Your task to perform on an android device: turn smart compose on in the gmail app Image 0: 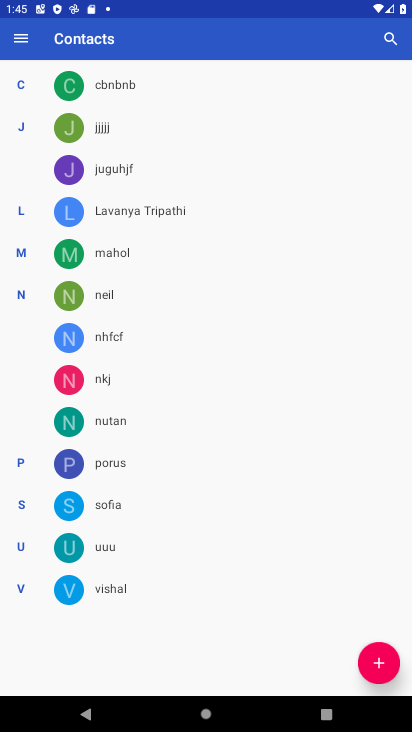
Step 0: press home button
Your task to perform on an android device: turn smart compose on in the gmail app Image 1: 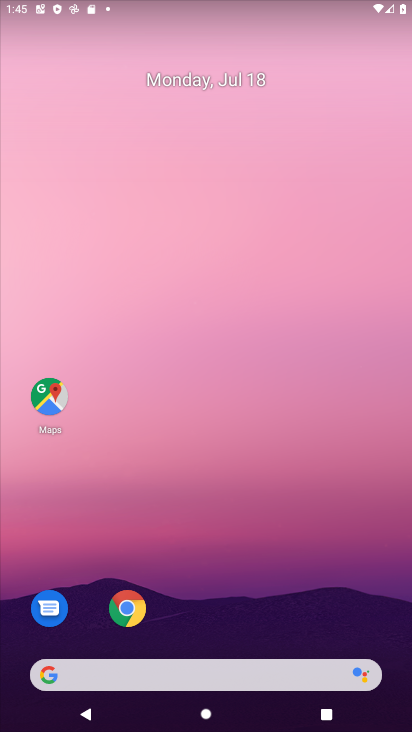
Step 1: drag from (393, 643) to (228, 23)
Your task to perform on an android device: turn smart compose on in the gmail app Image 2: 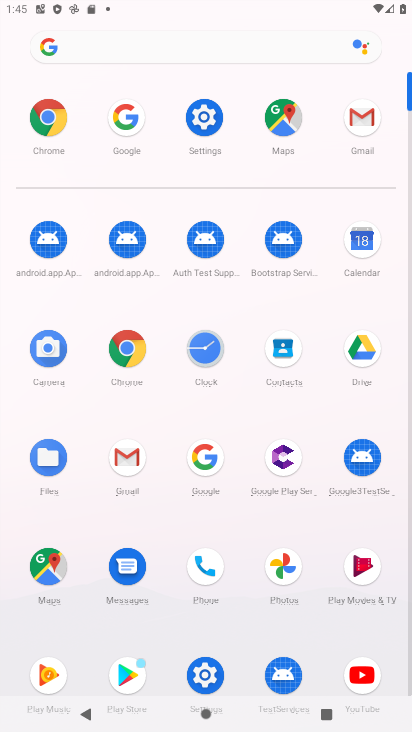
Step 2: click (113, 445)
Your task to perform on an android device: turn smart compose on in the gmail app Image 3: 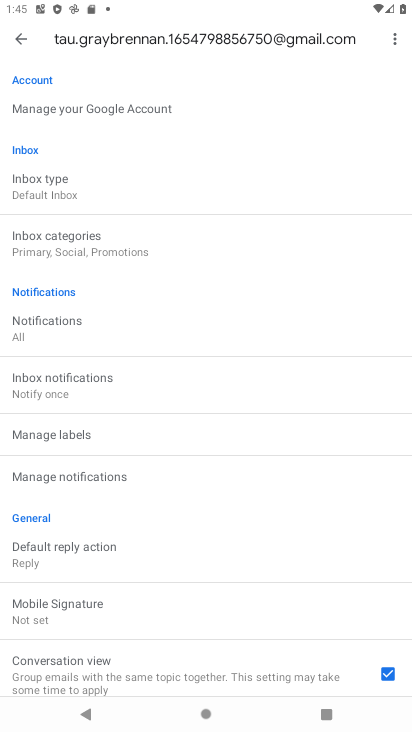
Step 3: task complete